Your task to perform on an android device: turn pop-ups off in chrome Image 0: 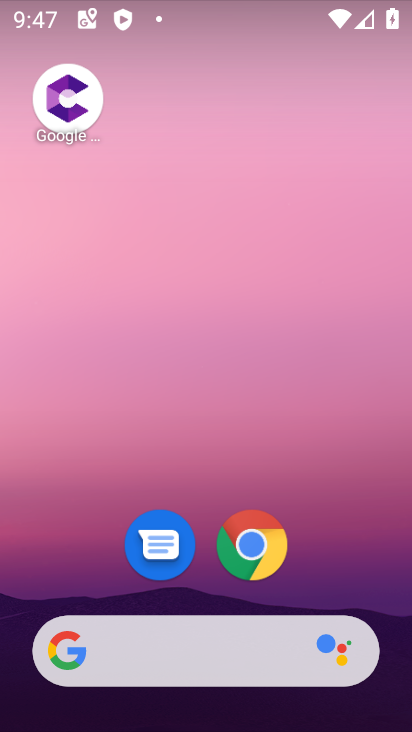
Step 0: click (261, 558)
Your task to perform on an android device: turn pop-ups off in chrome Image 1: 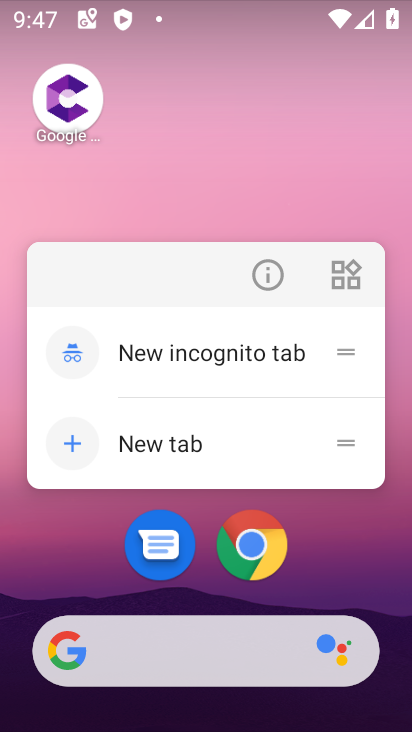
Step 1: click (268, 546)
Your task to perform on an android device: turn pop-ups off in chrome Image 2: 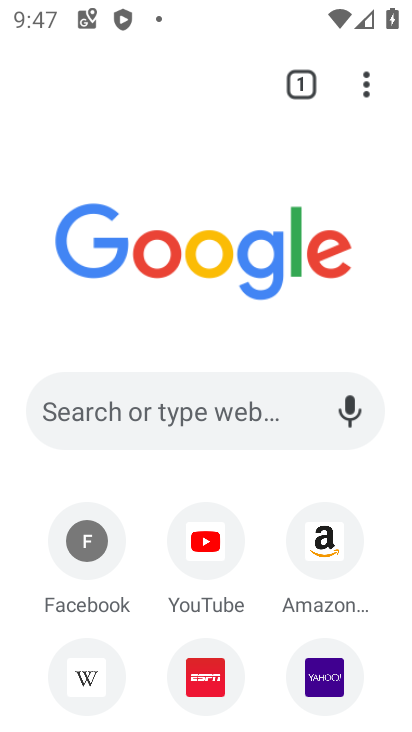
Step 2: click (370, 84)
Your task to perform on an android device: turn pop-ups off in chrome Image 3: 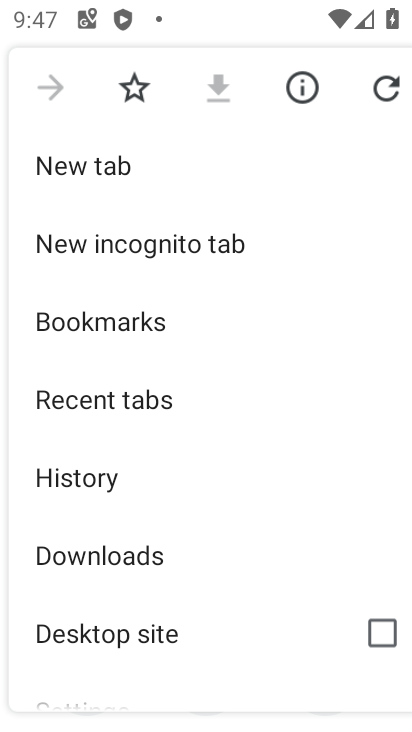
Step 3: drag from (210, 532) to (201, 74)
Your task to perform on an android device: turn pop-ups off in chrome Image 4: 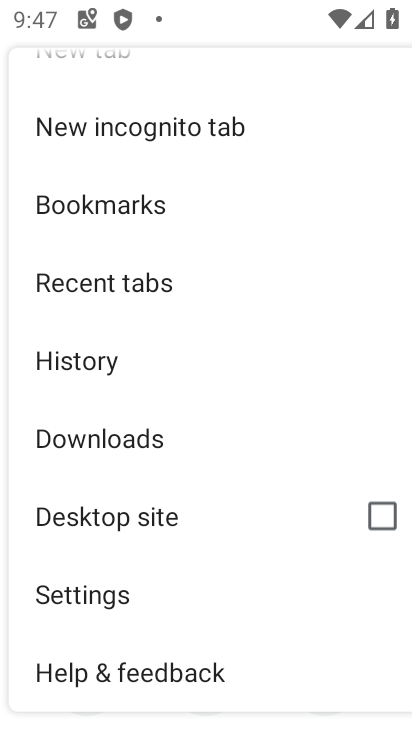
Step 4: click (90, 602)
Your task to perform on an android device: turn pop-ups off in chrome Image 5: 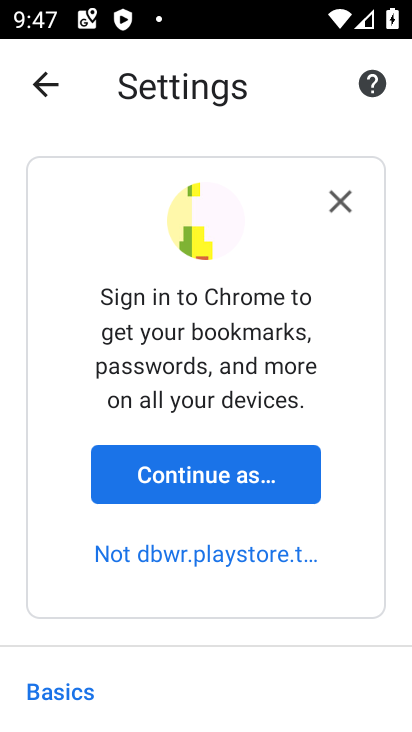
Step 5: drag from (267, 574) to (263, 140)
Your task to perform on an android device: turn pop-ups off in chrome Image 6: 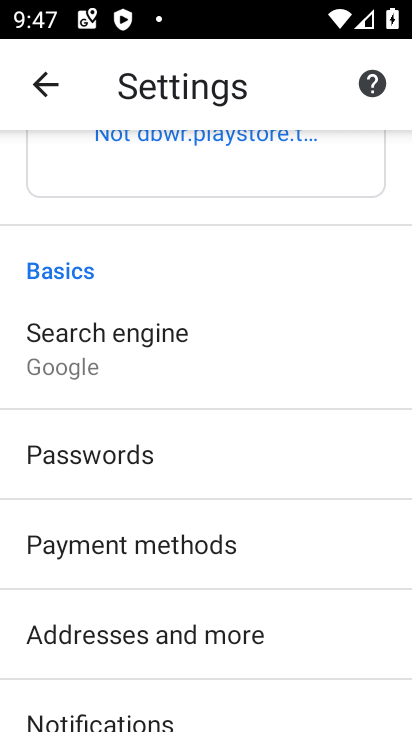
Step 6: drag from (212, 536) to (192, 150)
Your task to perform on an android device: turn pop-ups off in chrome Image 7: 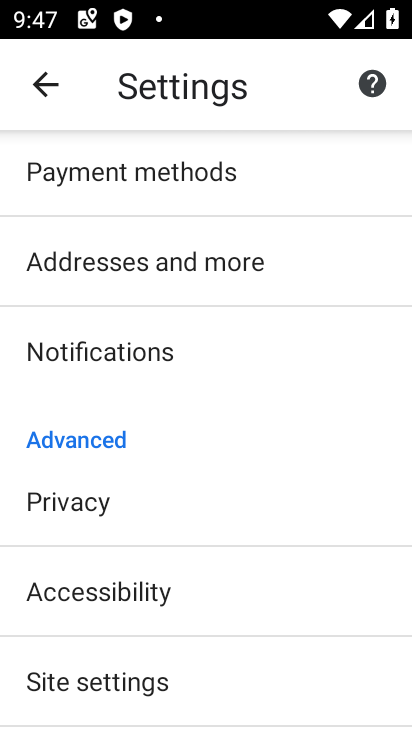
Step 7: click (101, 680)
Your task to perform on an android device: turn pop-ups off in chrome Image 8: 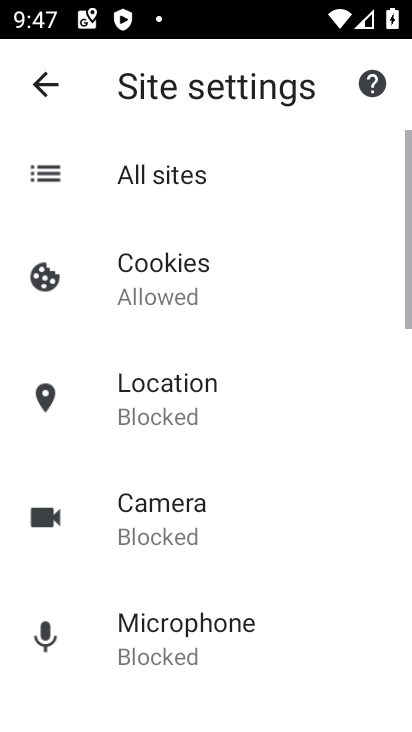
Step 8: drag from (257, 625) to (254, 270)
Your task to perform on an android device: turn pop-ups off in chrome Image 9: 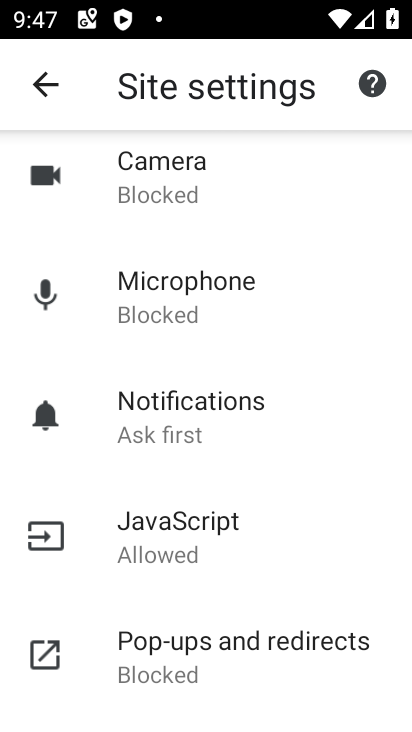
Step 9: click (171, 646)
Your task to perform on an android device: turn pop-ups off in chrome Image 10: 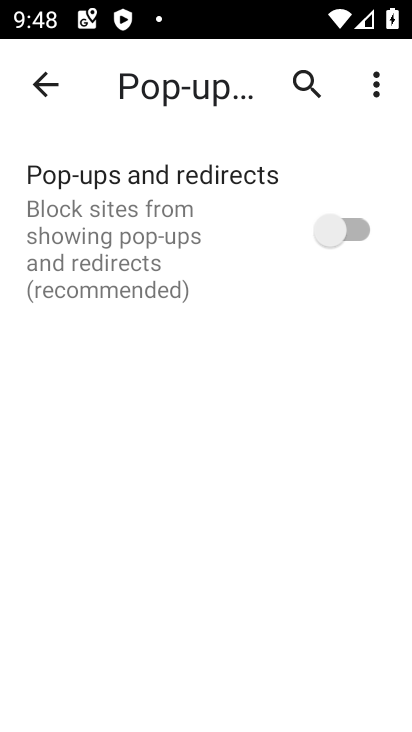
Step 10: task complete